Your task to perform on an android device: turn on the 24-hour format for clock Image 0: 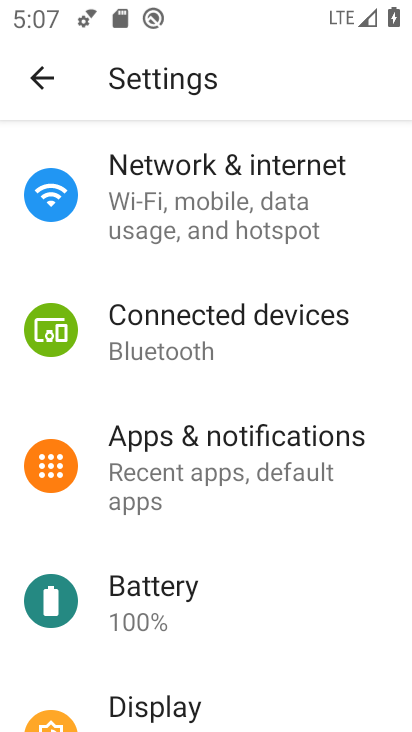
Step 0: press home button
Your task to perform on an android device: turn on the 24-hour format for clock Image 1: 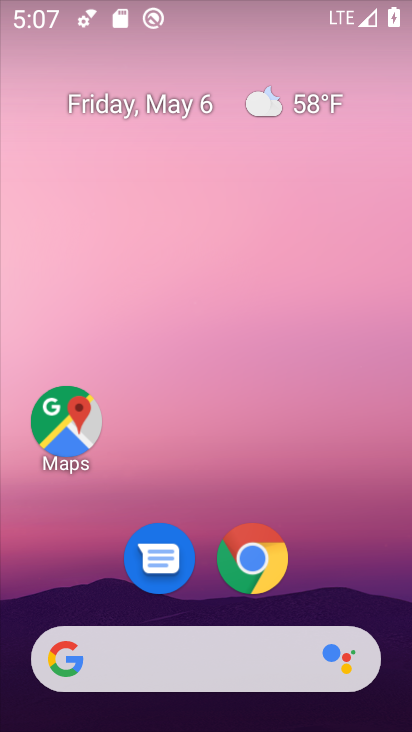
Step 1: drag from (333, 635) to (360, 85)
Your task to perform on an android device: turn on the 24-hour format for clock Image 2: 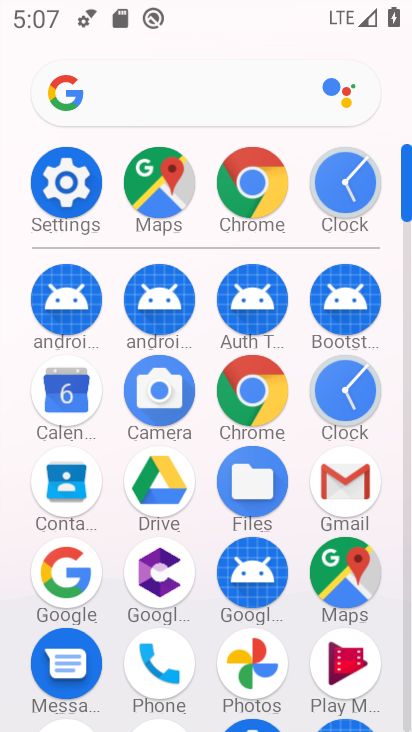
Step 2: click (340, 402)
Your task to perform on an android device: turn on the 24-hour format for clock Image 3: 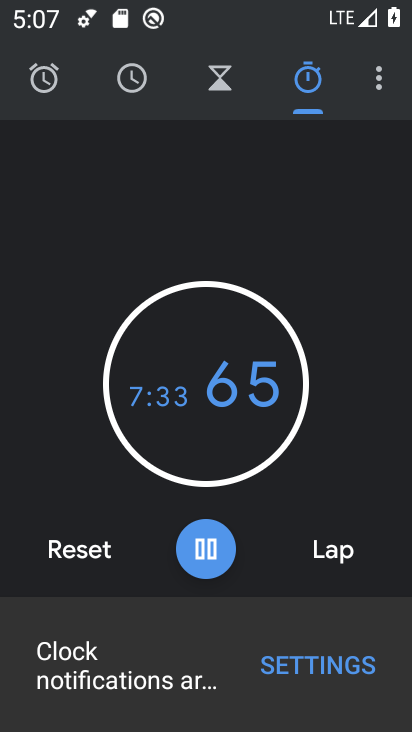
Step 3: click (384, 73)
Your task to perform on an android device: turn on the 24-hour format for clock Image 4: 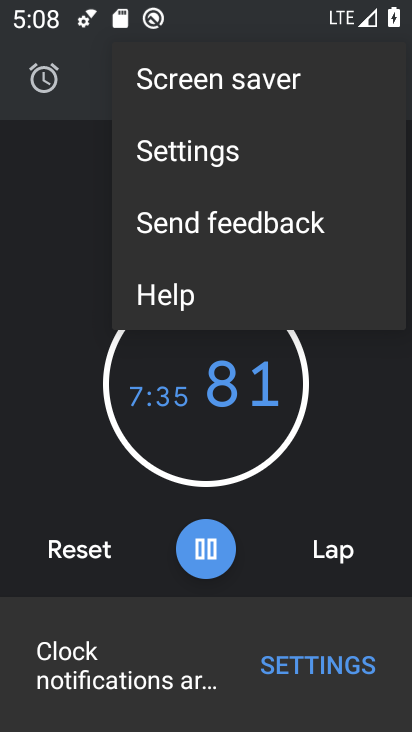
Step 4: click (259, 158)
Your task to perform on an android device: turn on the 24-hour format for clock Image 5: 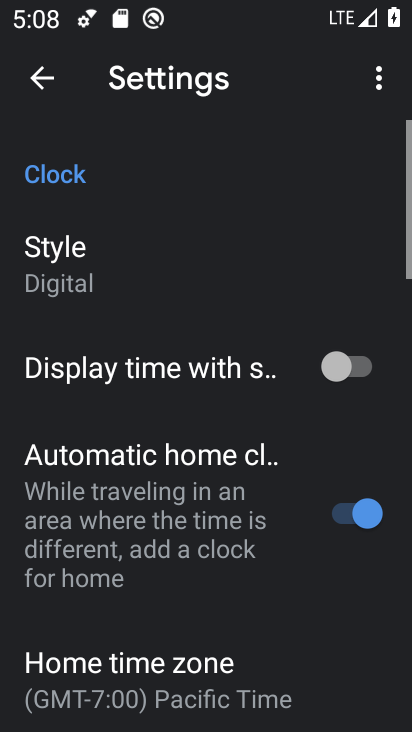
Step 5: drag from (299, 619) to (278, 111)
Your task to perform on an android device: turn on the 24-hour format for clock Image 6: 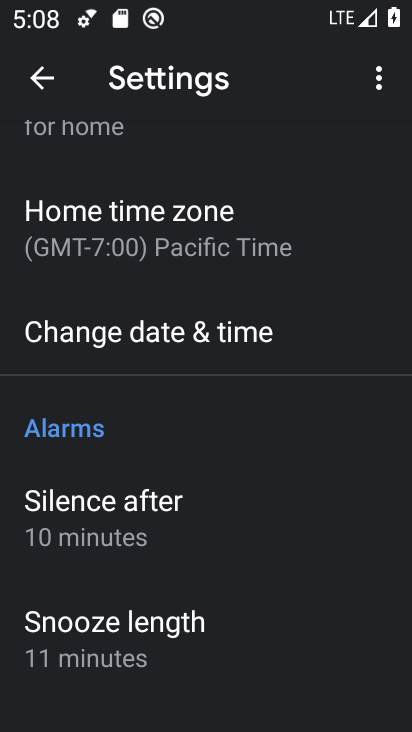
Step 6: click (214, 340)
Your task to perform on an android device: turn on the 24-hour format for clock Image 7: 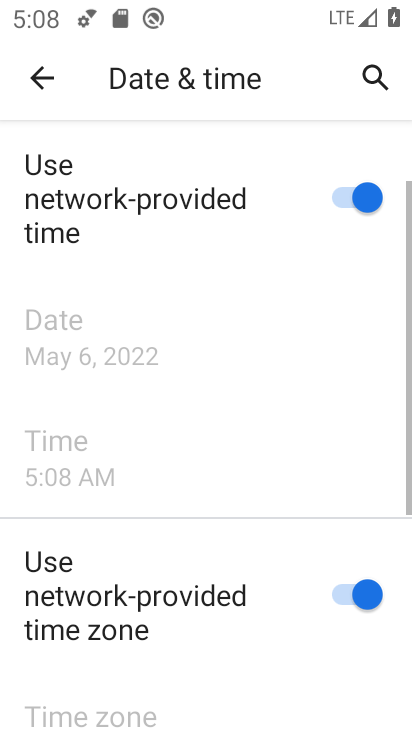
Step 7: drag from (279, 662) to (318, 128)
Your task to perform on an android device: turn on the 24-hour format for clock Image 8: 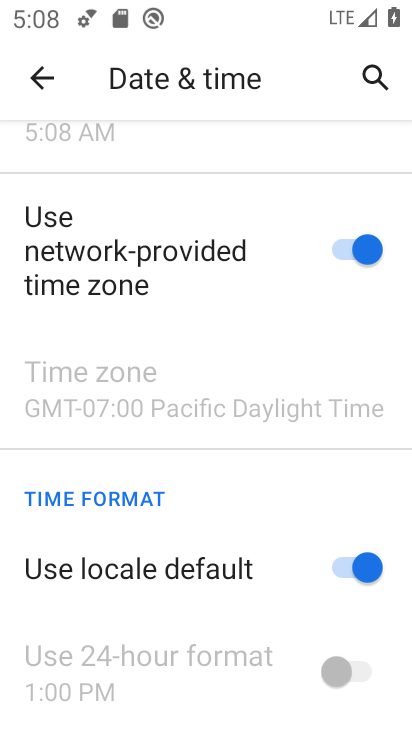
Step 8: click (348, 563)
Your task to perform on an android device: turn on the 24-hour format for clock Image 9: 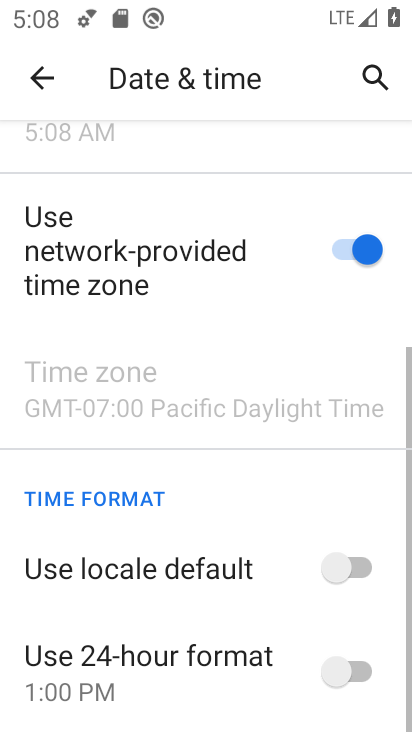
Step 9: click (355, 673)
Your task to perform on an android device: turn on the 24-hour format for clock Image 10: 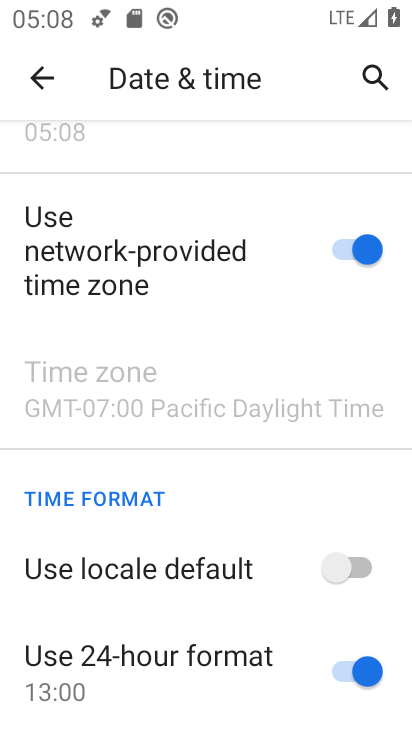
Step 10: task complete